Your task to perform on an android device: Search for pizza restaurants on Maps Image 0: 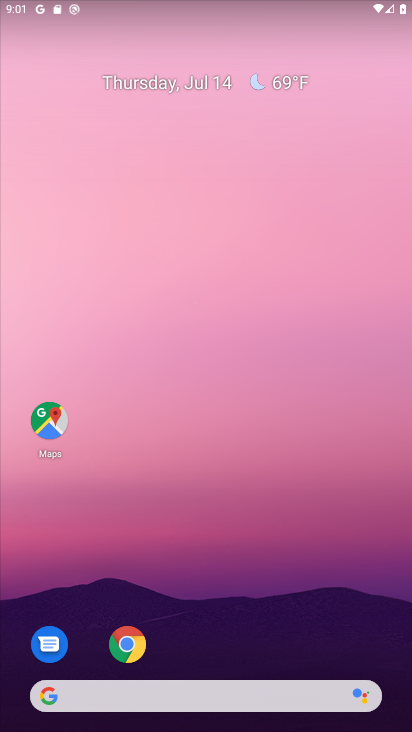
Step 0: click (62, 412)
Your task to perform on an android device: Search for pizza restaurants on Maps Image 1: 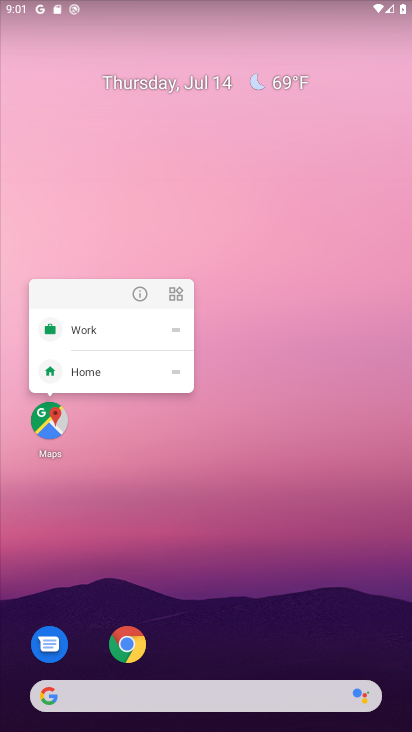
Step 1: click (50, 417)
Your task to perform on an android device: Search for pizza restaurants on Maps Image 2: 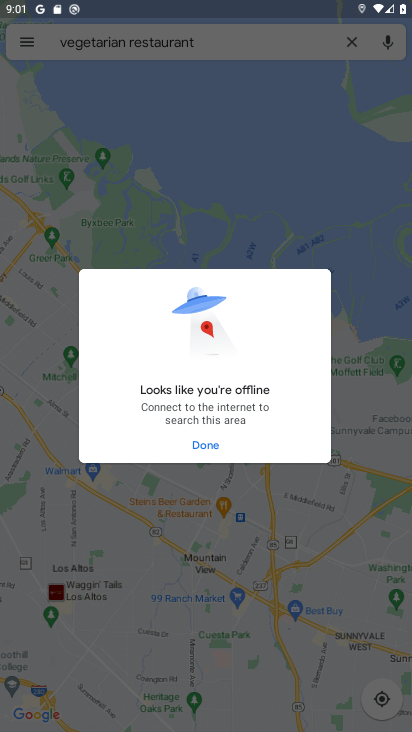
Step 2: click (215, 440)
Your task to perform on an android device: Search for pizza restaurants on Maps Image 3: 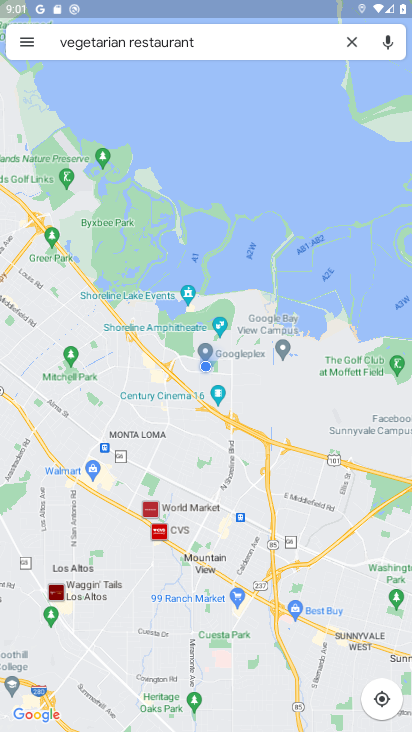
Step 3: click (346, 54)
Your task to perform on an android device: Search for pizza restaurants on Maps Image 4: 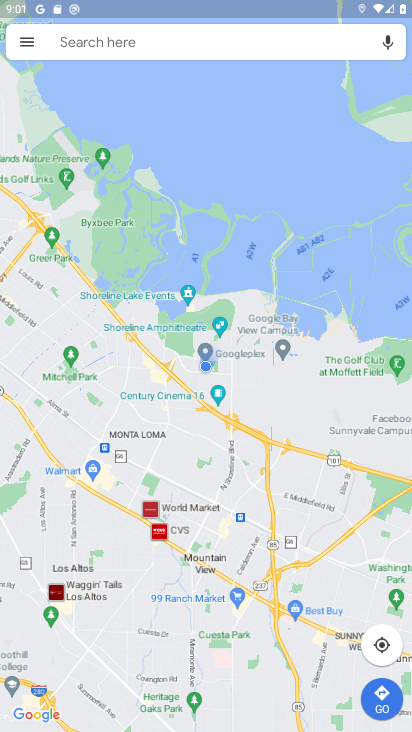
Step 4: click (314, 49)
Your task to perform on an android device: Search for pizza restaurants on Maps Image 5: 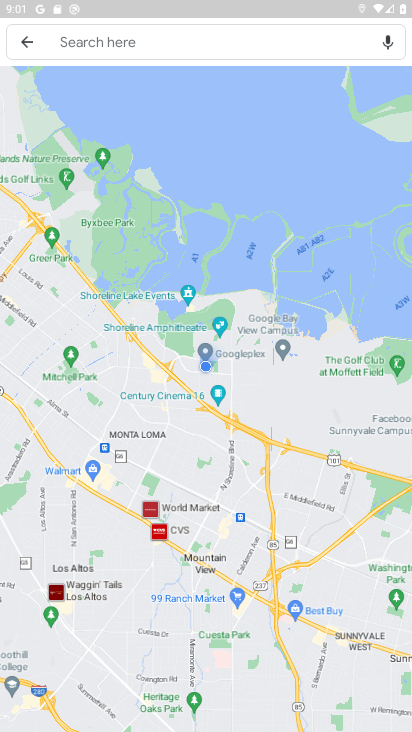
Step 5: click (310, 45)
Your task to perform on an android device: Search for pizza restaurants on Maps Image 6: 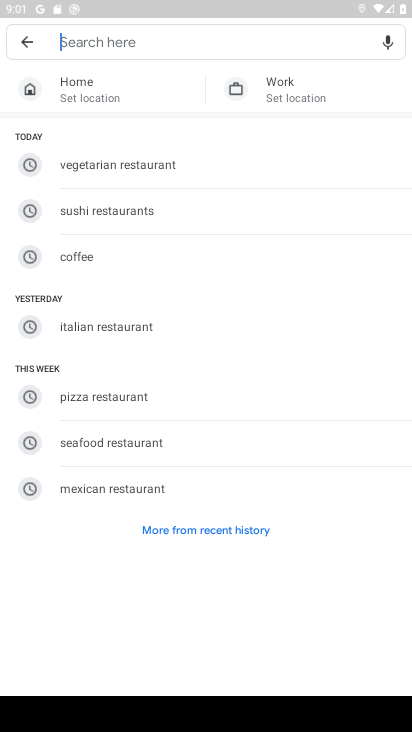
Step 6: click (140, 410)
Your task to perform on an android device: Search for pizza restaurants on Maps Image 7: 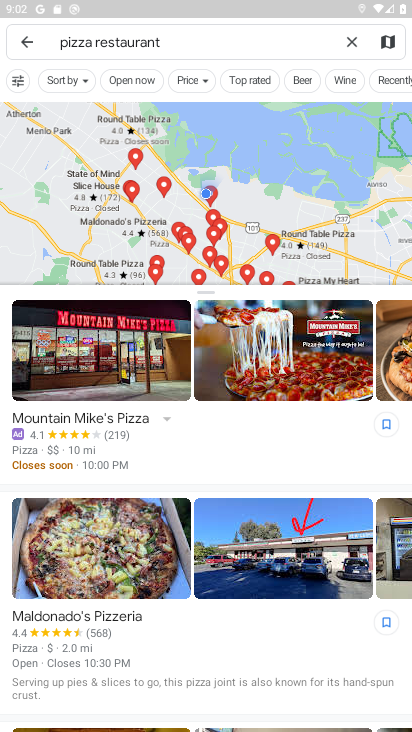
Step 7: task complete